Your task to perform on an android device: What's the weather going to be tomorrow? Image 0: 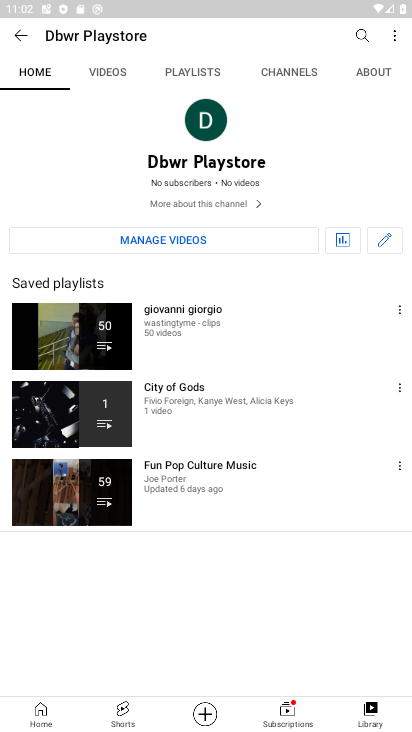
Step 0: press back button
Your task to perform on an android device: What's the weather going to be tomorrow? Image 1: 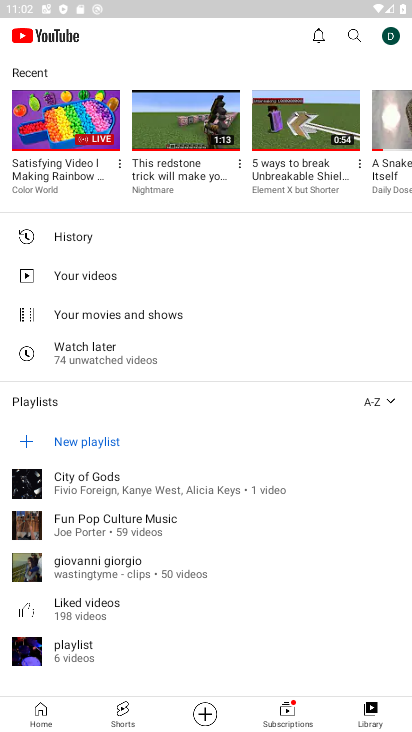
Step 1: click (38, 720)
Your task to perform on an android device: What's the weather going to be tomorrow? Image 2: 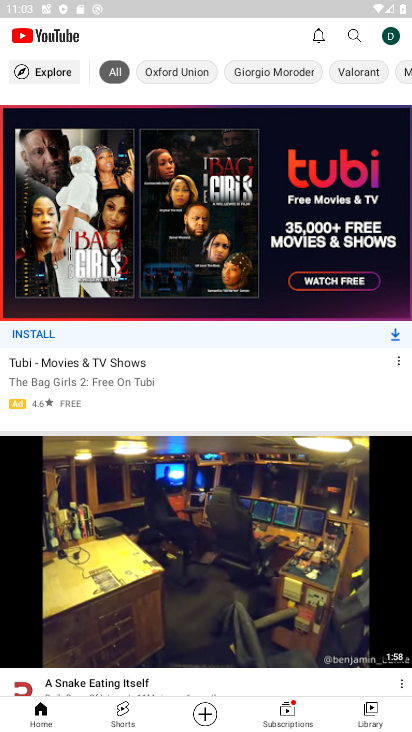
Step 2: press back button
Your task to perform on an android device: What's the weather going to be tomorrow? Image 3: 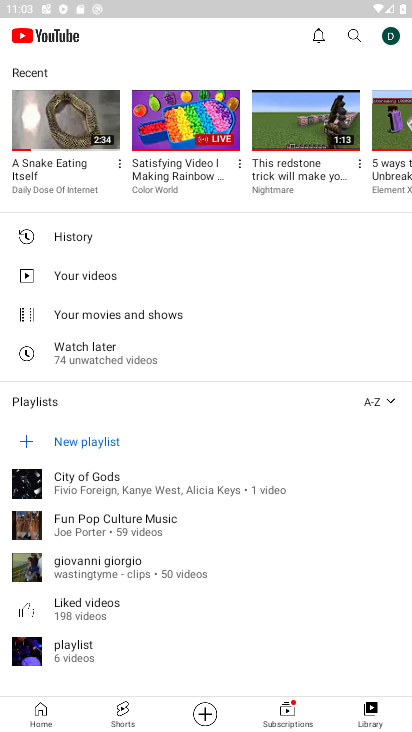
Step 3: press back button
Your task to perform on an android device: What's the weather going to be tomorrow? Image 4: 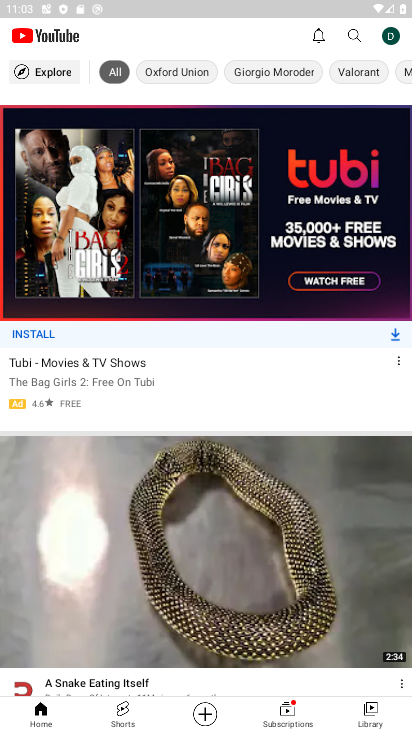
Step 4: press back button
Your task to perform on an android device: What's the weather going to be tomorrow? Image 5: 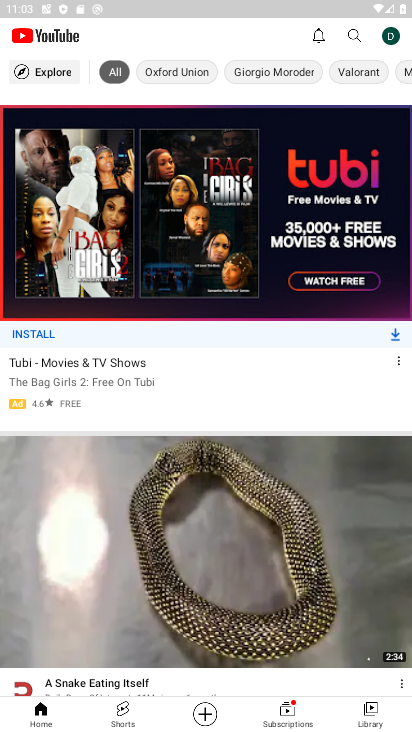
Step 5: press back button
Your task to perform on an android device: What's the weather going to be tomorrow? Image 6: 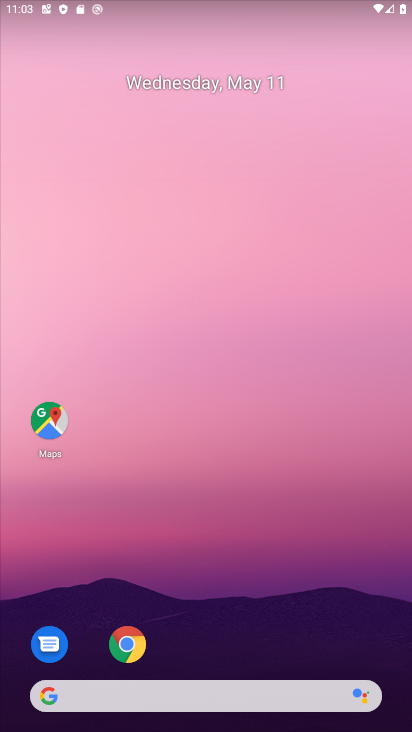
Step 6: press back button
Your task to perform on an android device: What's the weather going to be tomorrow? Image 7: 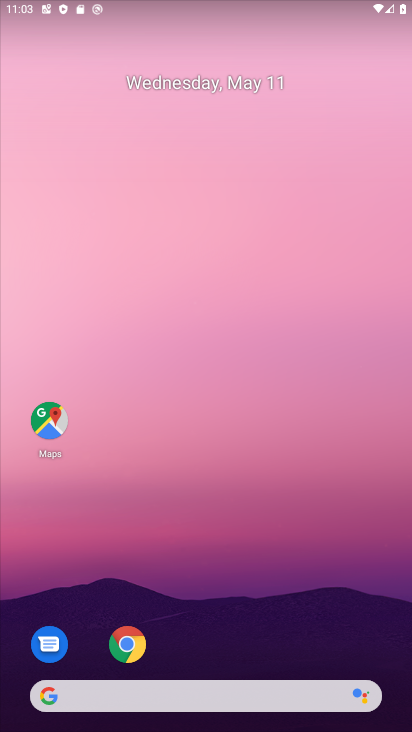
Step 7: press back button
Your task to perform on an android device: What's the weather going to be tomorrow? Image 8: 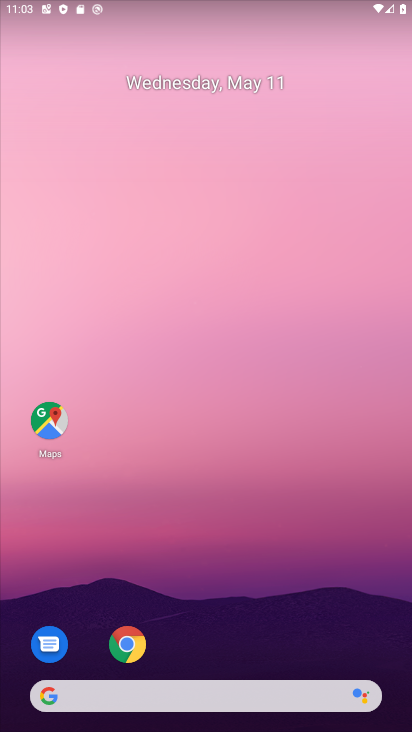
Step 8: drag from (237, 616) to (235, 240)
Your task to perform on an android device: What's the weather going to be tomorrow? Image 9: 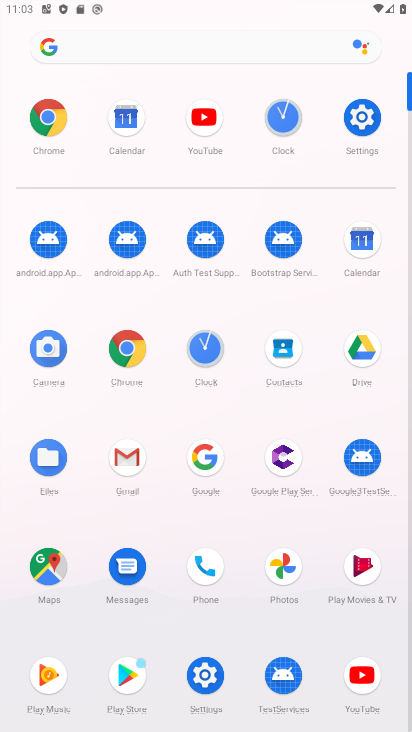
Step 9: click (259, 39)
Your task to perform on an android device: What's the weather going to be tomorrow? Image 10: 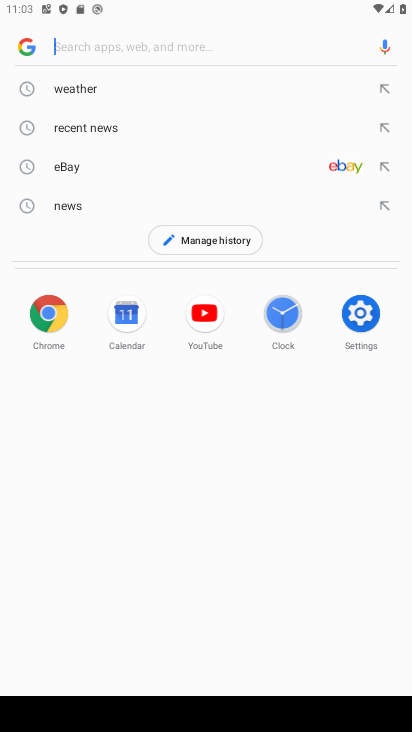
Step 10: click (192, 86)
Your task to perform on an android device: What's the weather going to be tomorrow? Image 11: 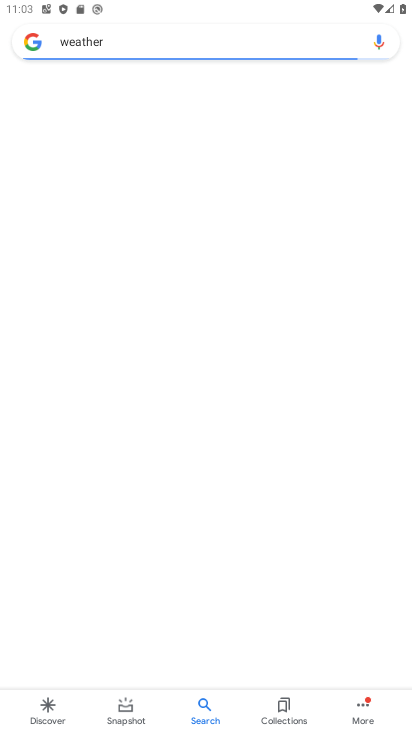
Step 11: task complete